Your task to perform on an android device: Search for sushi restaurants on Maps Image 0: 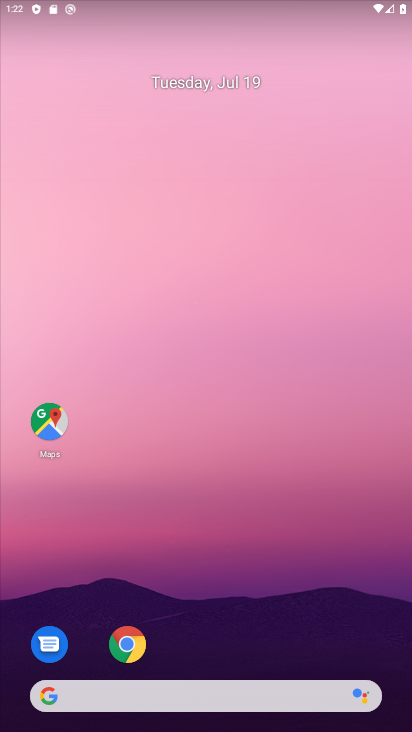
Step 0: drag from (223, 664) to (144, 6)
Your task to perform on an android device: Search for sushi restaurants on Maps Image 1: 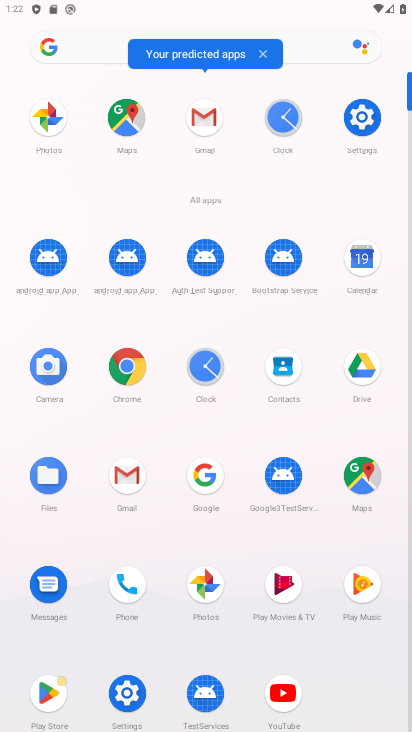
Step 1: click (122, 130)
Your task to perform on an android device: Search for sushi restaurants on Maps Image 2: 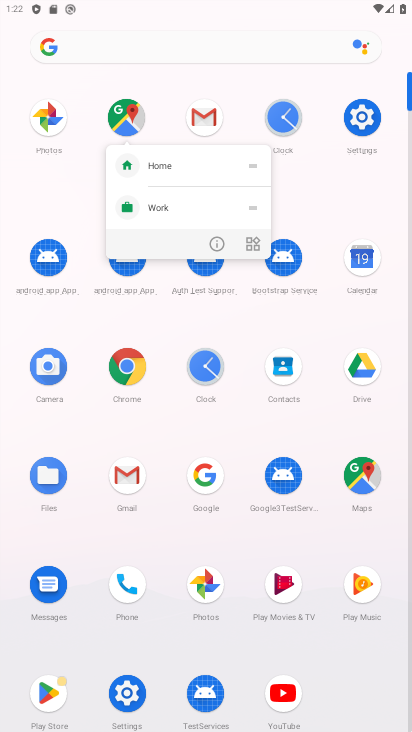
Step 2: click (127, 105)
Your task to perform on an android device: Search for sushi restaurants on Maps Image 3: 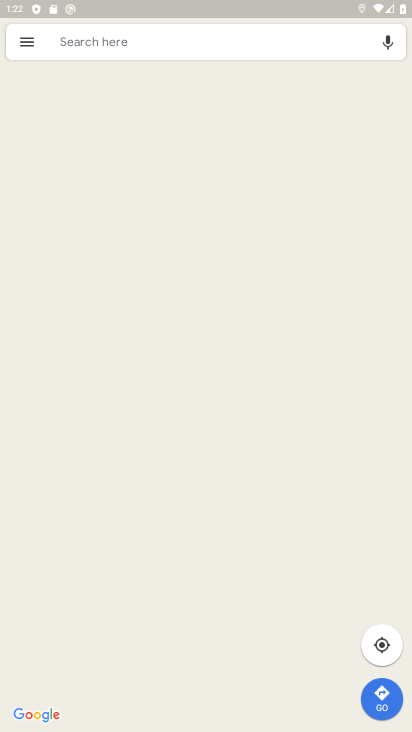
Step 3: click (140, 55)
Your task to perform on an android device: Search for sushi restaurants on Maps Image 4: 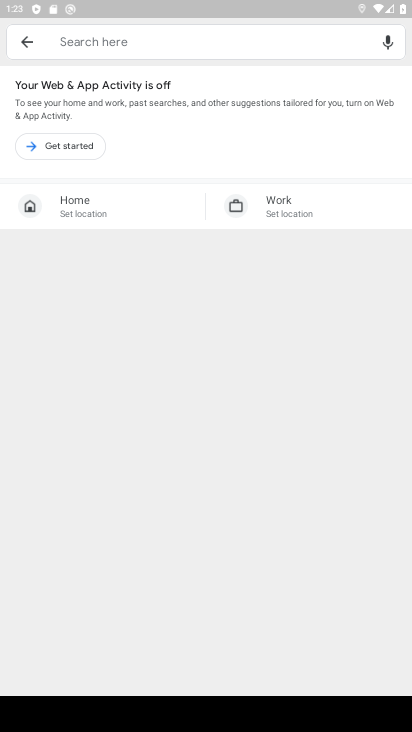
Step 4: type "sushi restaurants"
Your task to perform on an android device: Search for sushi restaurants on Maps Image 5: 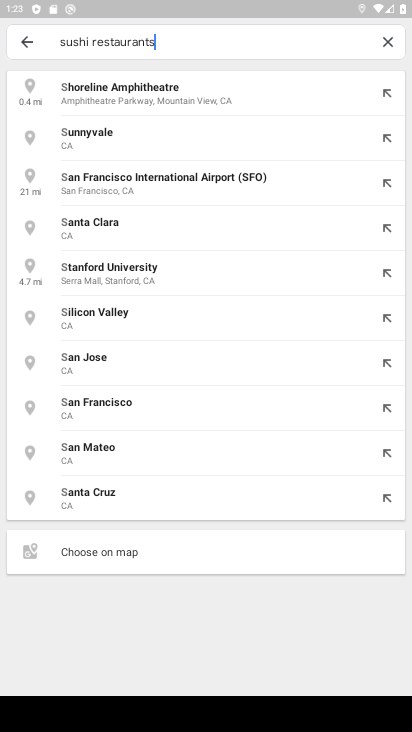
Step 5: type ""
Your task to perform on an android device: Search for sushi restaurants on Maps Image 6: 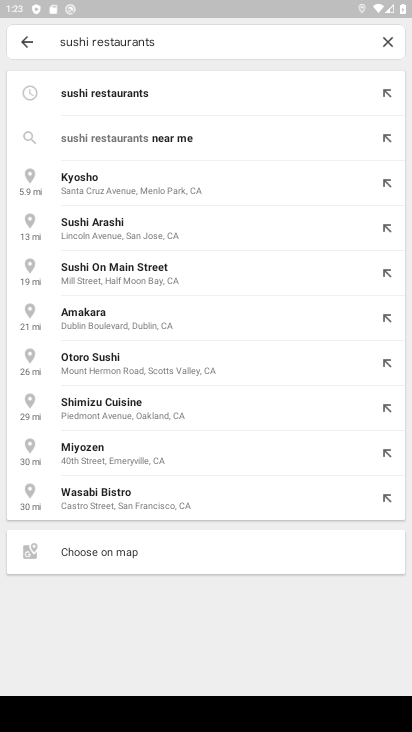
Step 6: click (96, 69)
Your task to perform on an android device: Search for sushi restaurants on Maps Image 7: 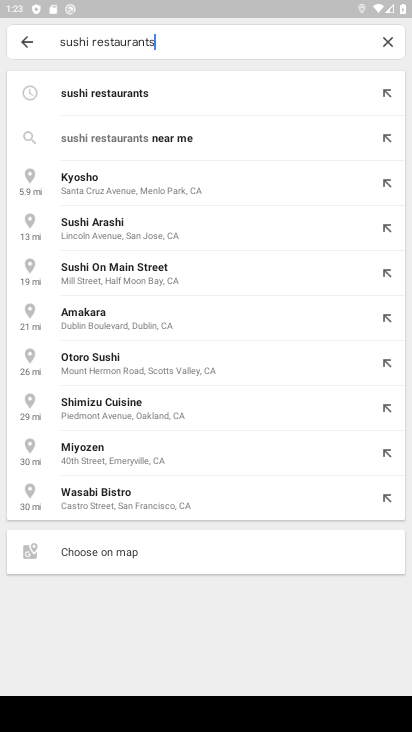
Step 7: click (94, 82)
Your task to perform on an android device: Search for sushi restaurants on Maps Image 8: 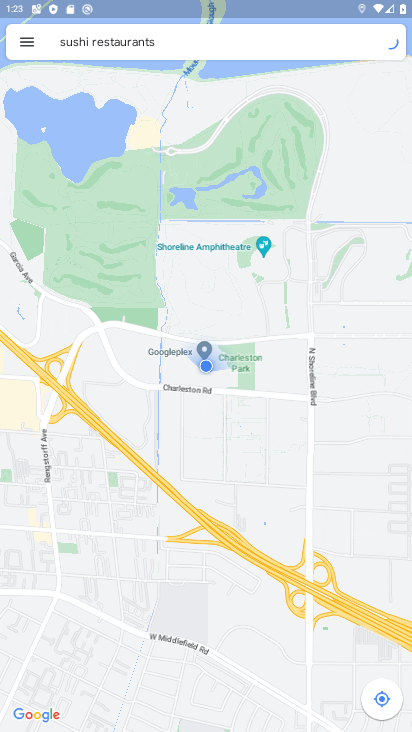
Step 8: task complete